Your task to perform on an android device: find which apps use the phone's location Image 0: 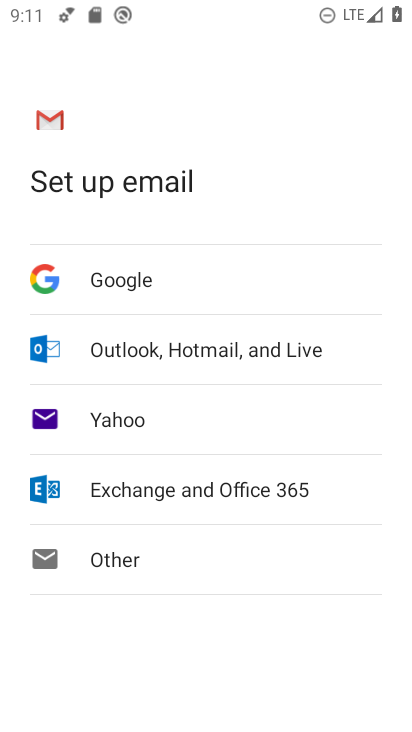
Step 0: press home button
Your task to perform on an android device: find which apps use the phone's location Image 1: 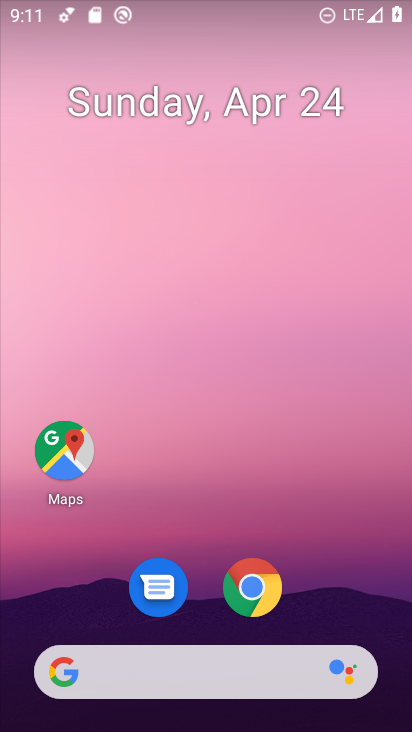
Step 1: drag from (370, 569) to (346, 186)
Your task to perform on an android device: find which apps use the phone's location Image 2: 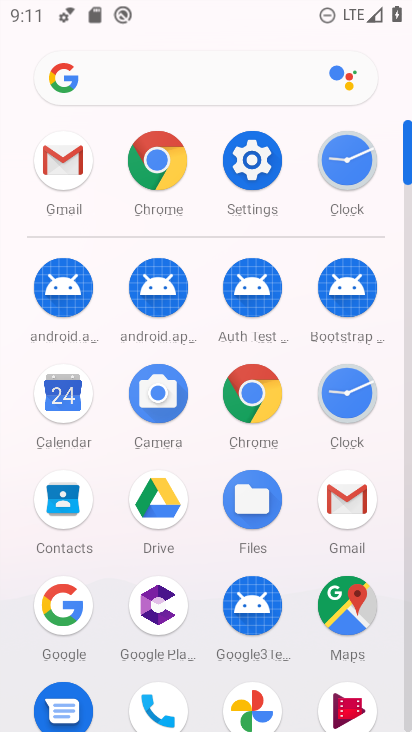
Step 2: click (254, 170)
Your task to perform on an android device: find which apps use the phone's location Image 3: 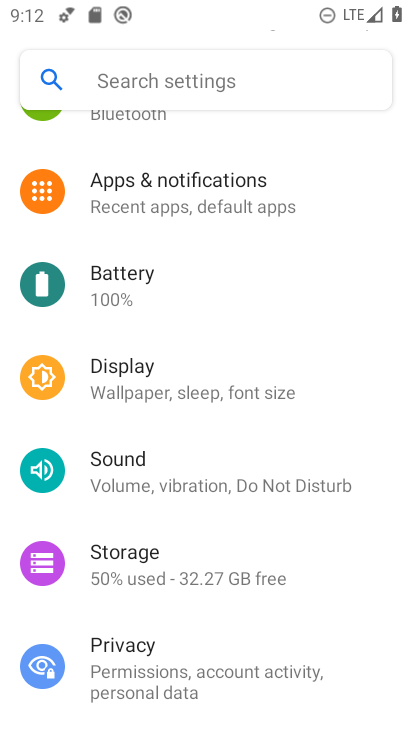
Step 3: drag from (266, 528) to (277, 234)
Your task to perform on an android device: find which apps use the phone's location Image 4: 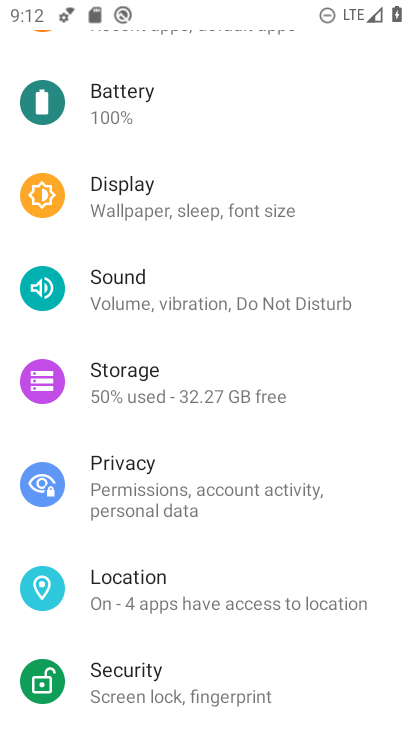
Step 4: click (179, 577)
Your task to perform on an android device: find which apps use the phone's location Image 5: 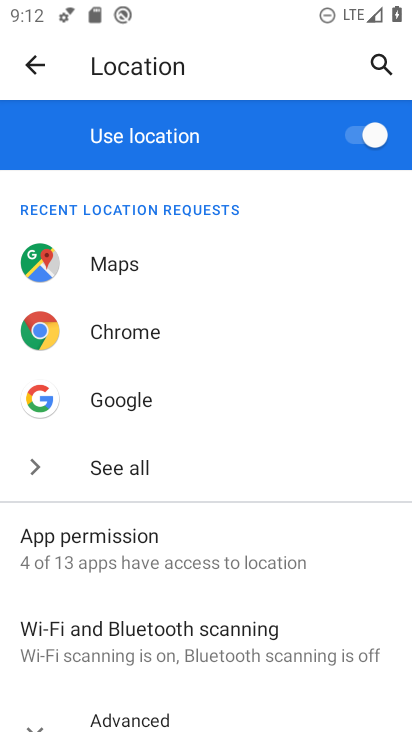
Step 5: click (129, 265)
Your task to perform on an android device: find which apps use the phone's location Image 6: 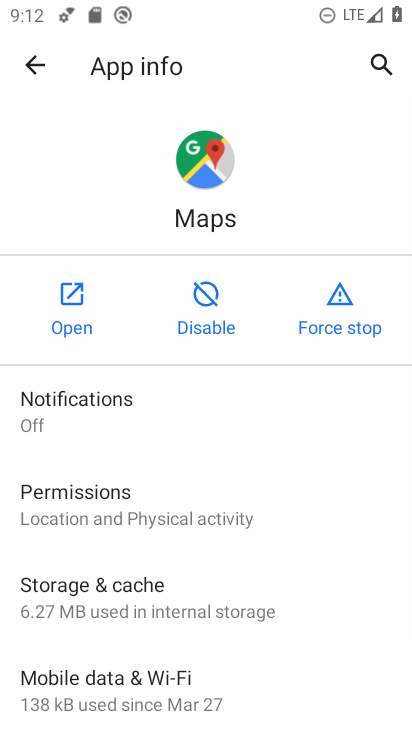
Step 6: task complete